Your task to perform on an android device: See recent photos Image 0: 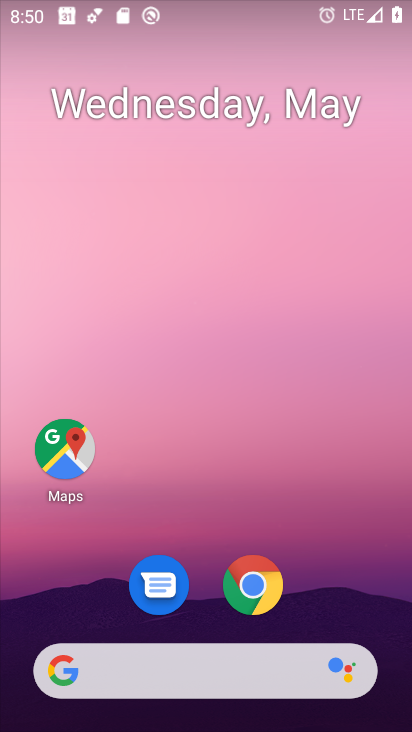
Step 0: drag from (294, 501) to (204, 72)
Your task to perform on an android device: See recent photos Image 1: 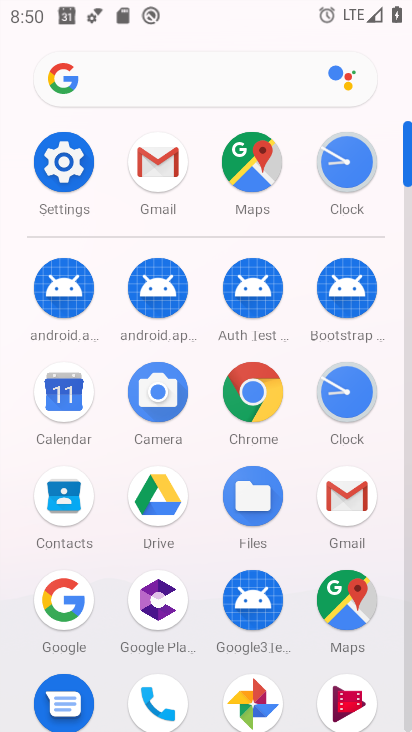
Step 1: drag from (204, 429) to (179, 215)
Your task to perform on an android device: See recent photos Image 2: 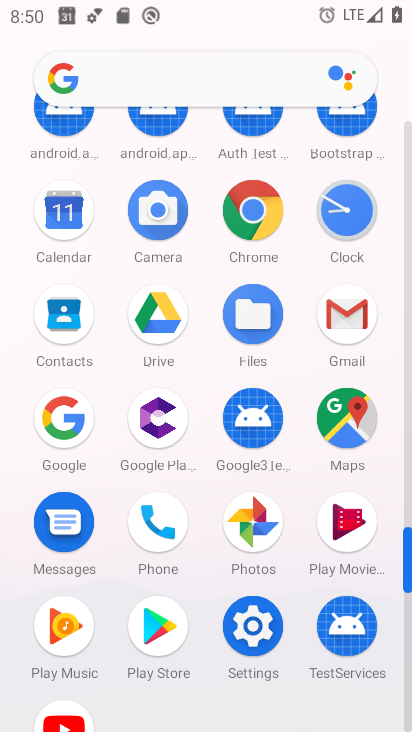
Step 2: click (243, 529)
Your task to perform on an android device: See recent photos Image 3: 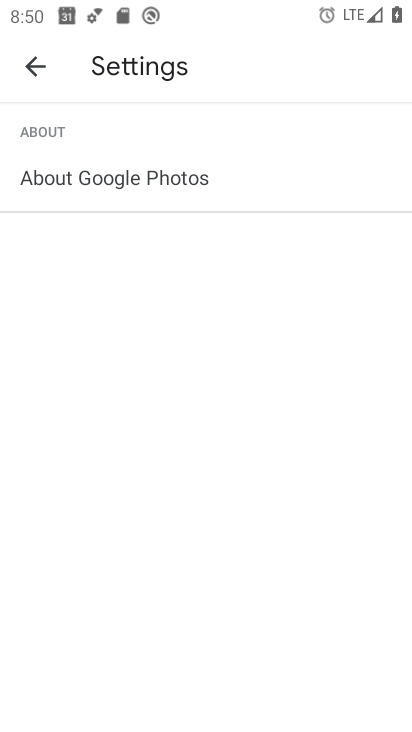
Step 3: click (28, 54)
Your task to perform on an android device: See recent photos Image 4: 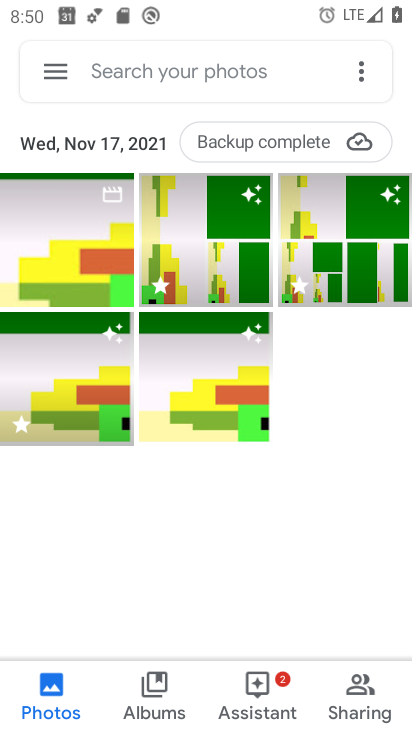
Step 4: task complete